Your task to perform on an android device: Search for vegetarian restaurants on Maps Image 0: 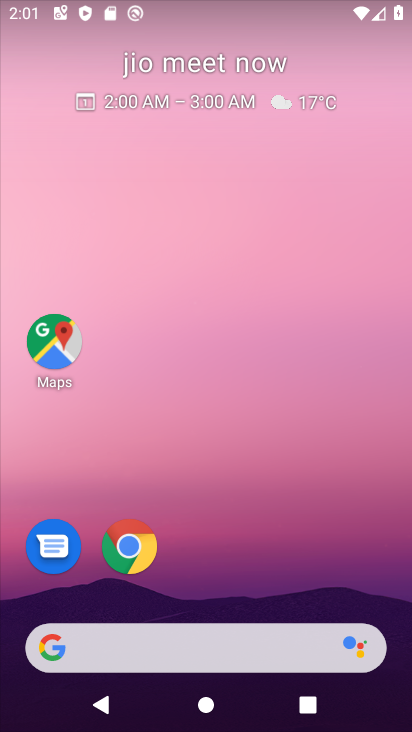
Step 0: drag from (322, 593) to (270, 3)
Your task to perform on an android device: Search for vegetarian restaurants on Maps Image 1: 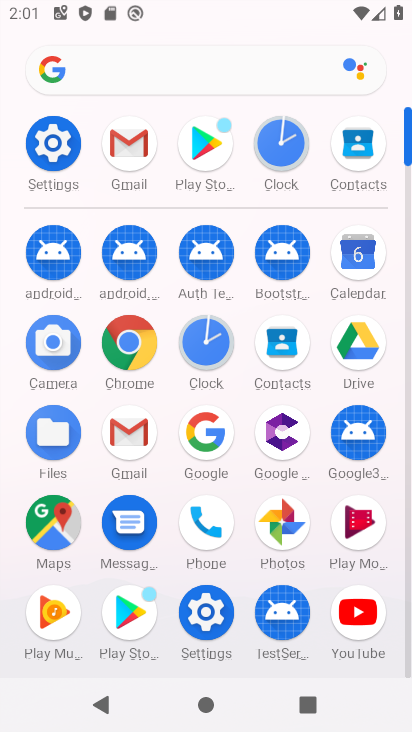
Step 1: click (65, 516)
Your task to perform on an android device: Search for vegetarian restaurants on Maps Image 2: 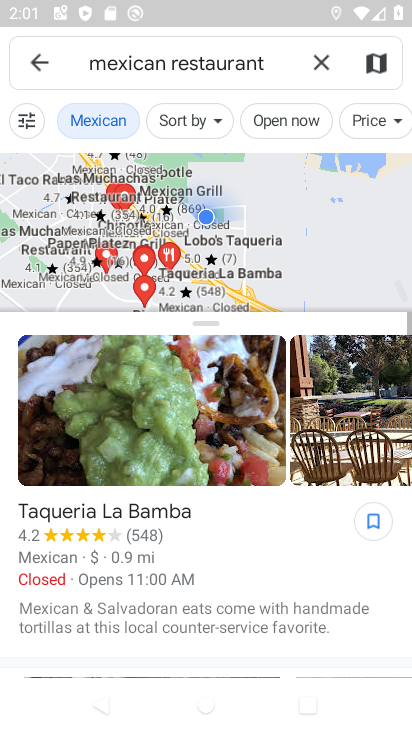
Step 2: click (315, 63)
Your task to perform on an android device: Search for vegetarian restaurants on Maps Image 3: 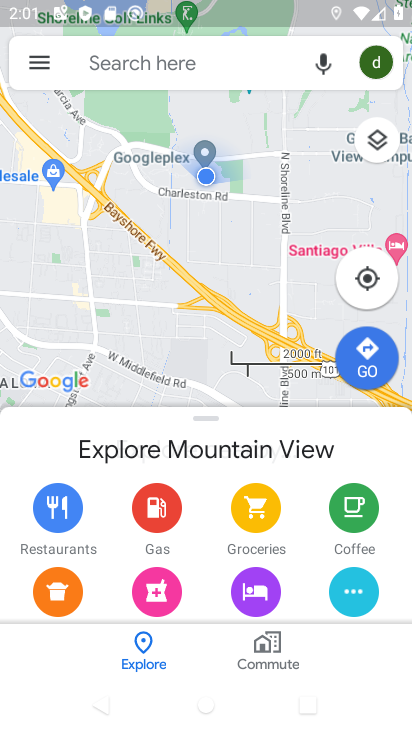
Step 3: click (236, 60)
Your task to perform on an android device: Search for vegetarian restaurants on Maps Image 4: 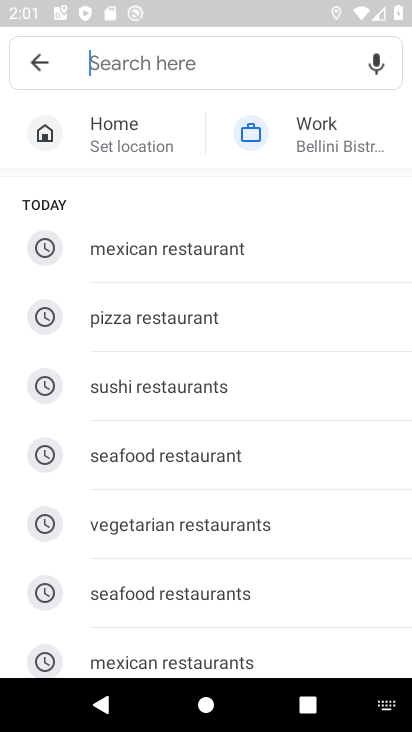
Step 4: type "vegetarian"
Your task to perform on an android device: Search for vegetarian restaurants on Maps Image 5: 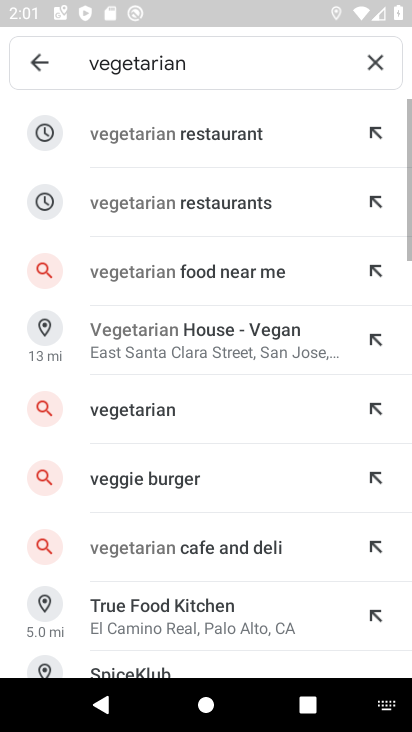
Step 5: click (172, 140)
Your task to perform on an android device: Search for vegetarian restaurants on Maps Image 6: 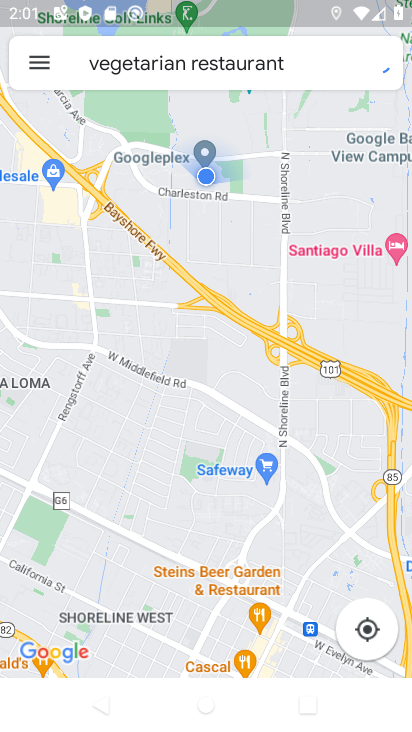
Step 6: task complete